Your task to perform on an android device: turn smart compose on in the gmail app Image 0: 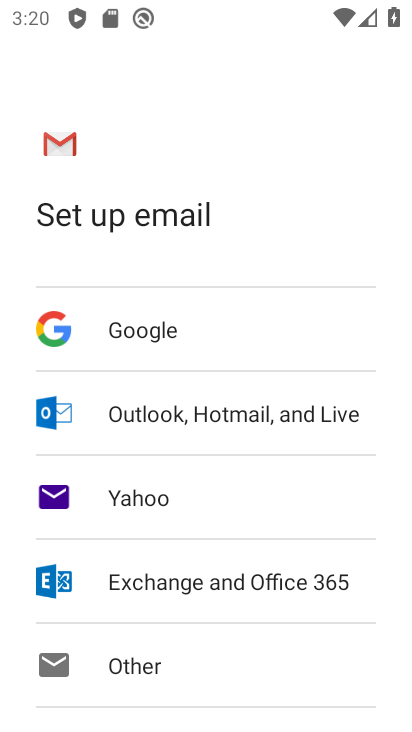
Step 0: press home button
Your task to perform on an android device: turn smart compose on in the gmail app Image 1: 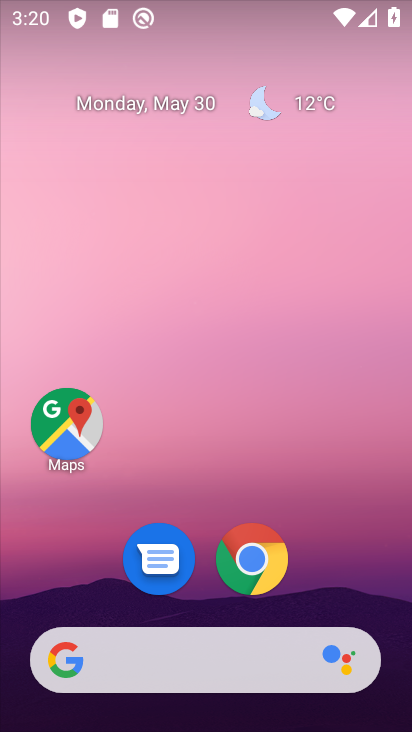
Step 1: drag from (198, 725) to (199, 76)
Your task to perform on an android device: turn smart compose on in the gmail app Image 2: 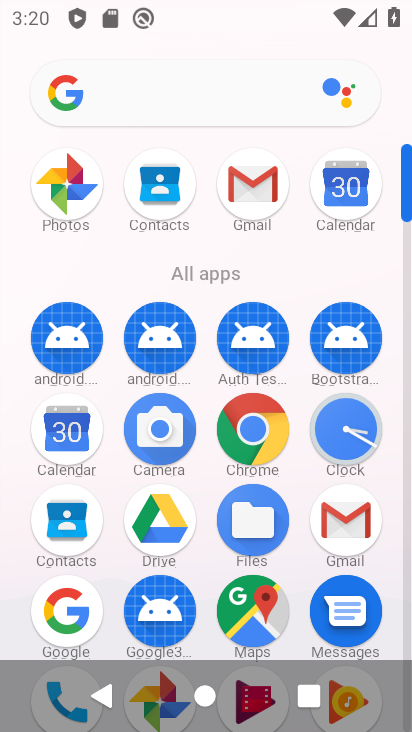
Step 2: click (342, 526)
Your task to perform on an android device: turn smart compose on in the gmail app Image 3: 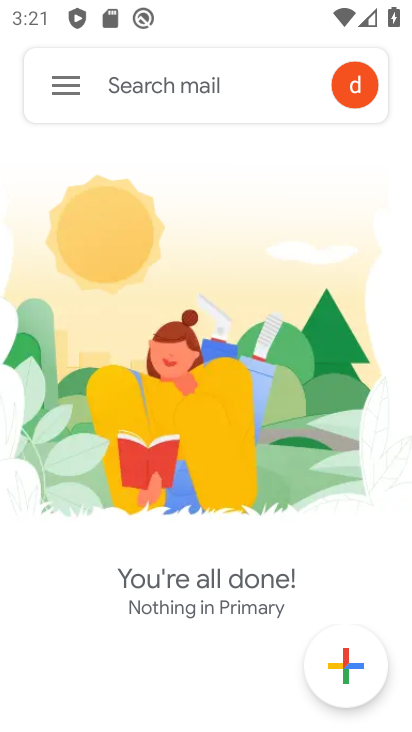
Step 3: click (65, 88)
Your task to perform on an android device: turn smart compose on in the gmail app Image 4: 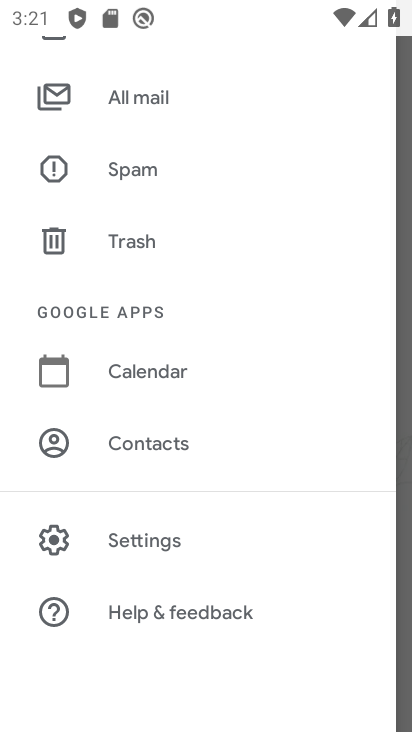
Step 4: click (145, 533)
Your task to perform on an android device: turn smart compose on in the gmail app Image 5: 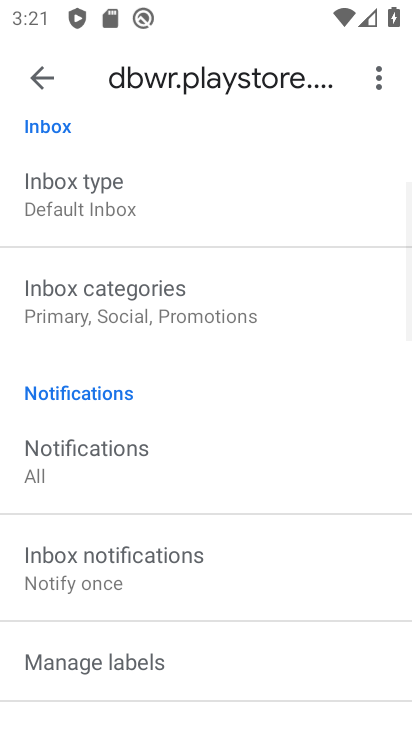
Step 5: task complete